Your task to perform on an android device: Go to Amazon Image 0: 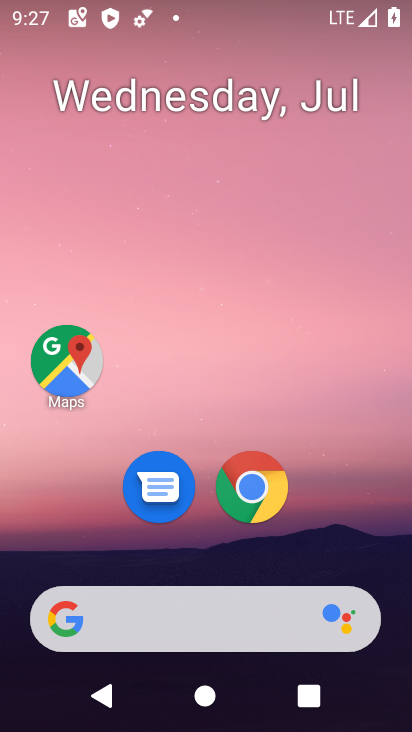
Step 0: click (230, 463)
Your task to perform on an android device: Go to Amazon Image 1: 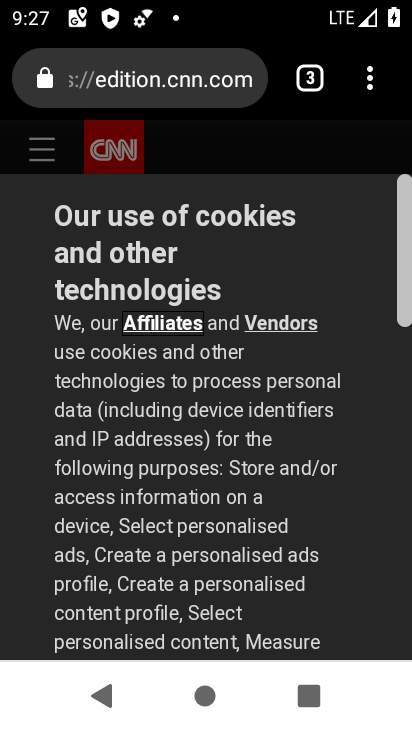
Step 1: click (285, 87)
Your task to perform on an android device: Go to Amazon Image 2: 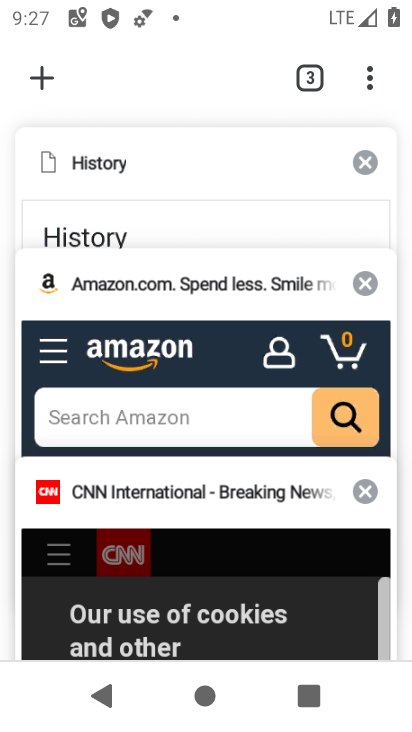
Step 2: click (120, 59)
Your task to perform on an android device: Go to Amazon Image 3: 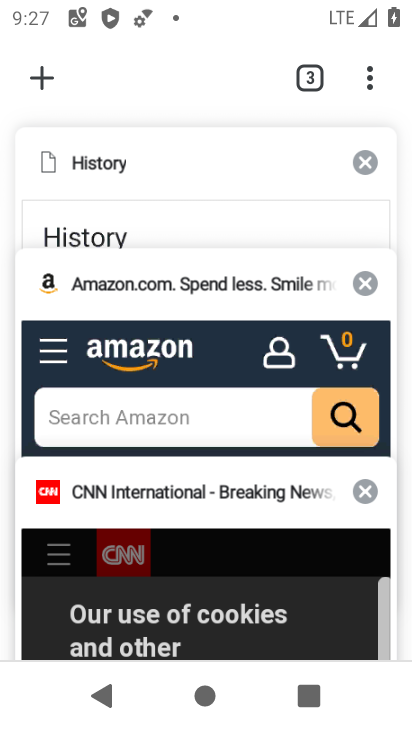
Step 3: drag from (189, 343) to (152, 472)
Your task to perform on an android device: Go to Amazon Image 4: 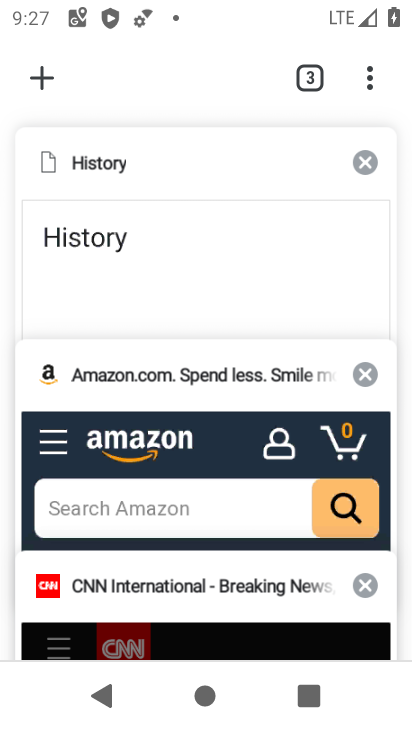
Step 4: click (232, 439)
Your task to perform on an android device: Go to Amazon Image 5: 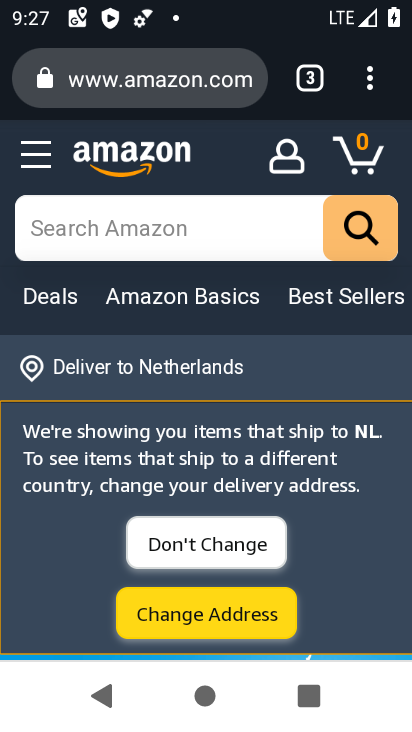
Step 5: click (230, 531)
Your task to perform on an android device: Go to Amazon Image 6: 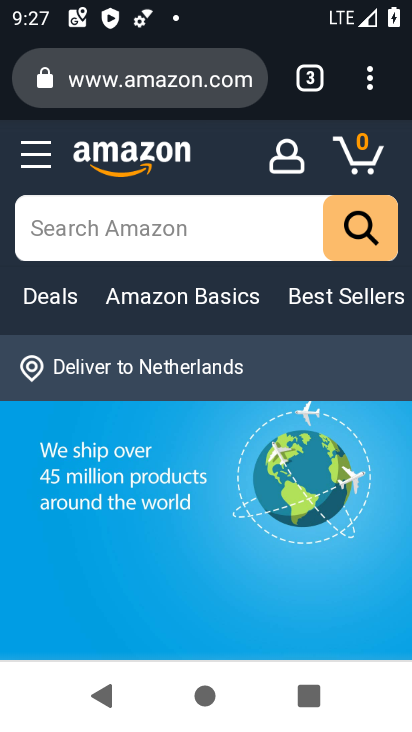
Step 6: task complete